Your task to perform on an android device: change notification settings in the gmail app Image 0: 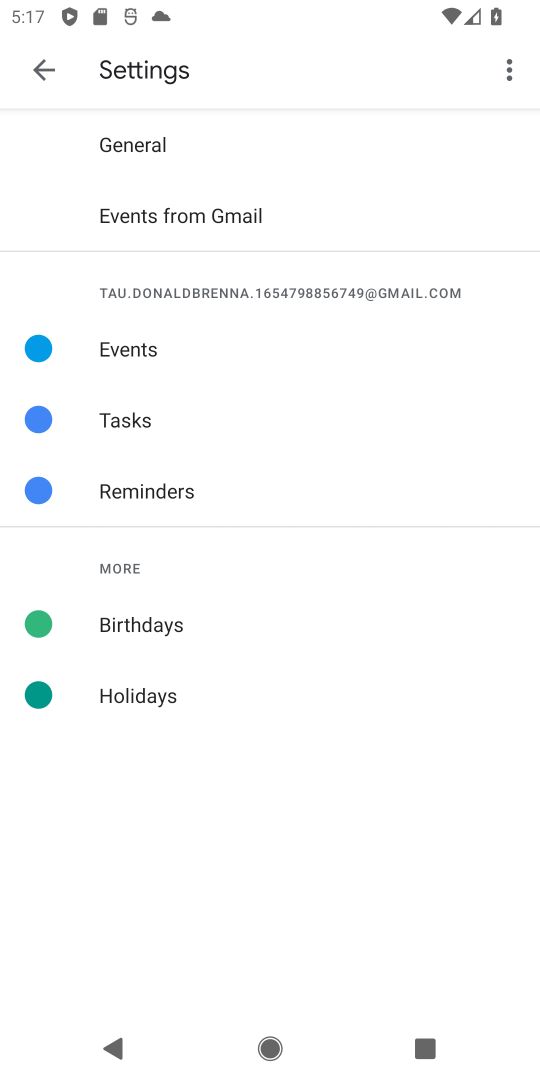
Step 0: press back button
Your task to perform on an android device: change notification settings in the gmail app Image 1: 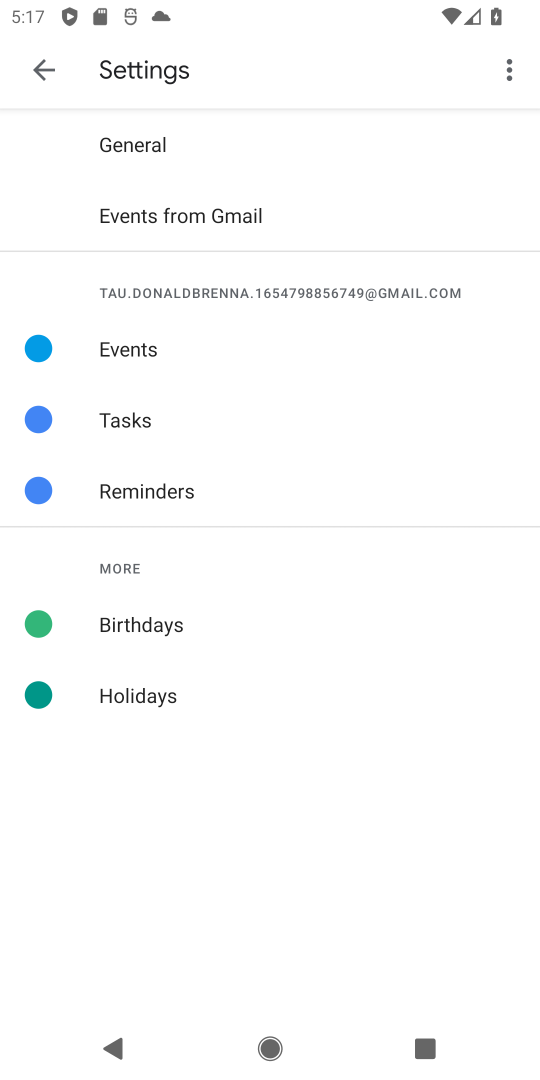
Step 1: press back button
Your task to perform on an android device: change notification settings in the gmail app Image 2: 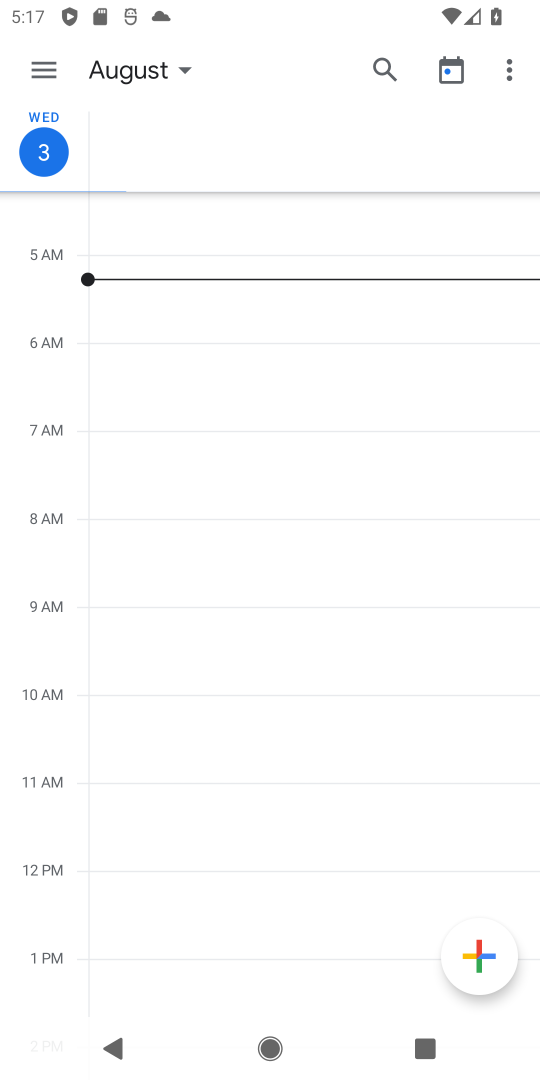
Step 2: press back button
Your task to perform on an android device: change notification settings in the gmail app Image 3: 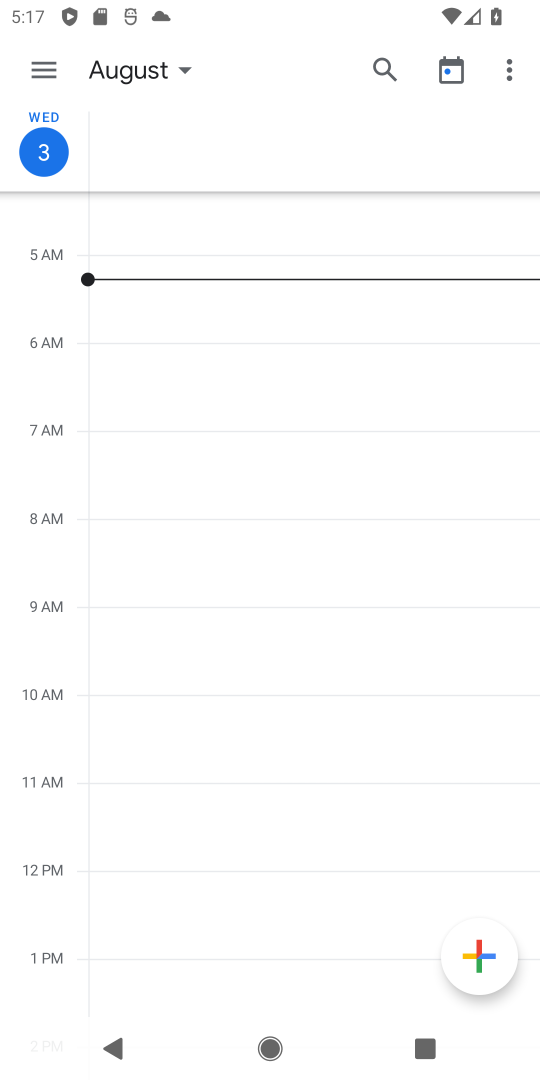
Step 3: press back button
Your task to perform on an android device: change notification settings in the gmail app Image 4: 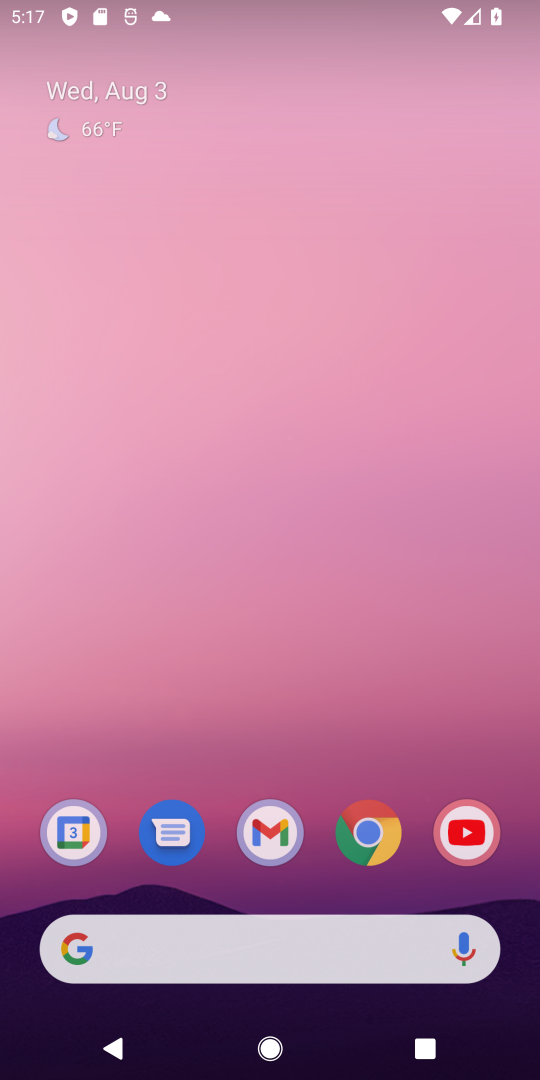
Step 4: press back button
Your task to perform on an android device: change notification settings in the gmail app Image 5: 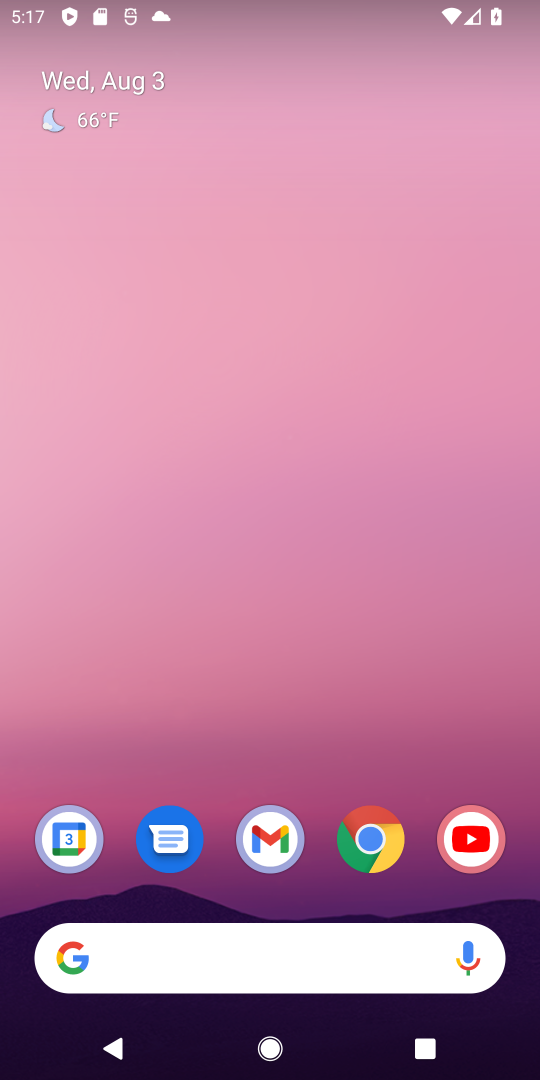
Step 5: click (274, 832)
Your task to perform on an android device: change notification settings in the gmail app Image 6: 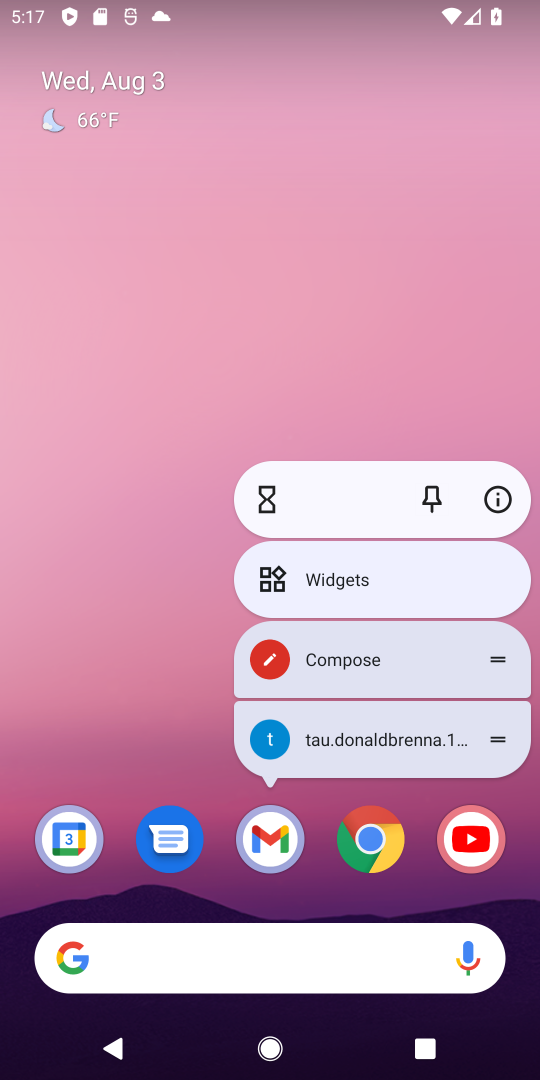
Step 6: click (486, 501)
Your task to perform on an android device: change notification settings in the gmail app Image 7: 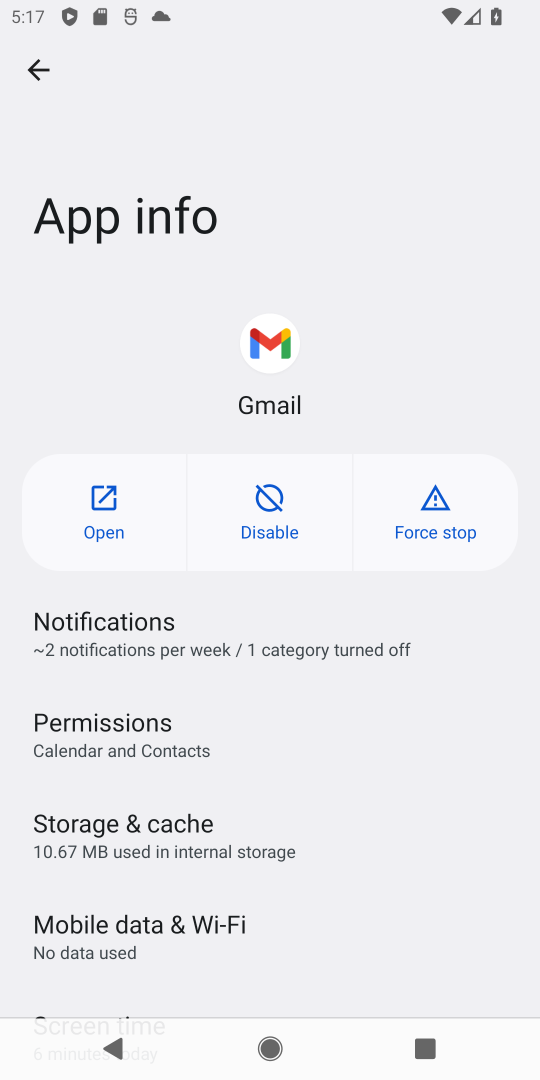
Step 7: click (165, 635)
Your task to perform on an android device: change notification settings in the gmail app Image 8: 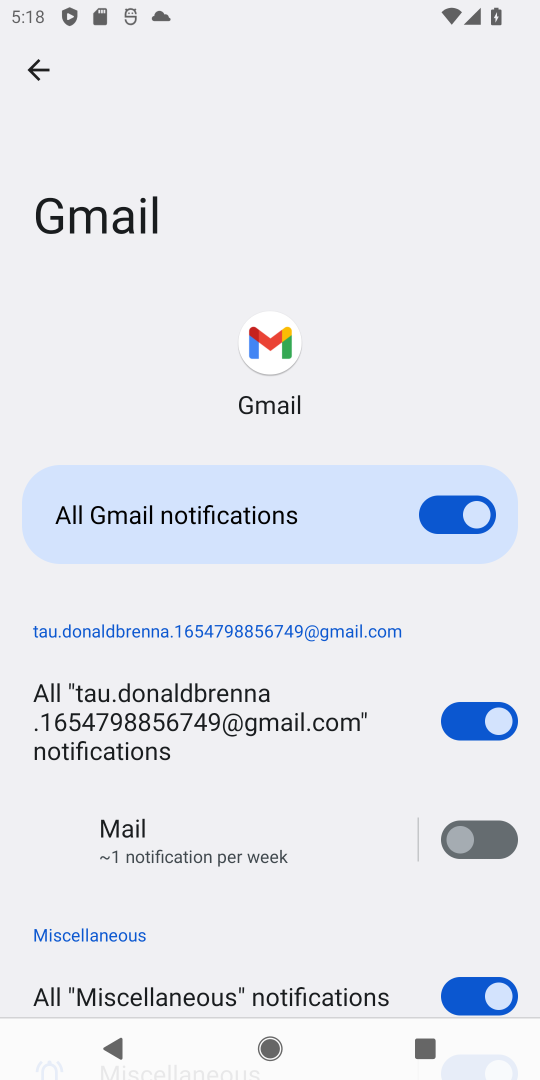
Step 8: click (452, 516)
Your task to perform on an android device: change notification settings in the gmail app Image 9: 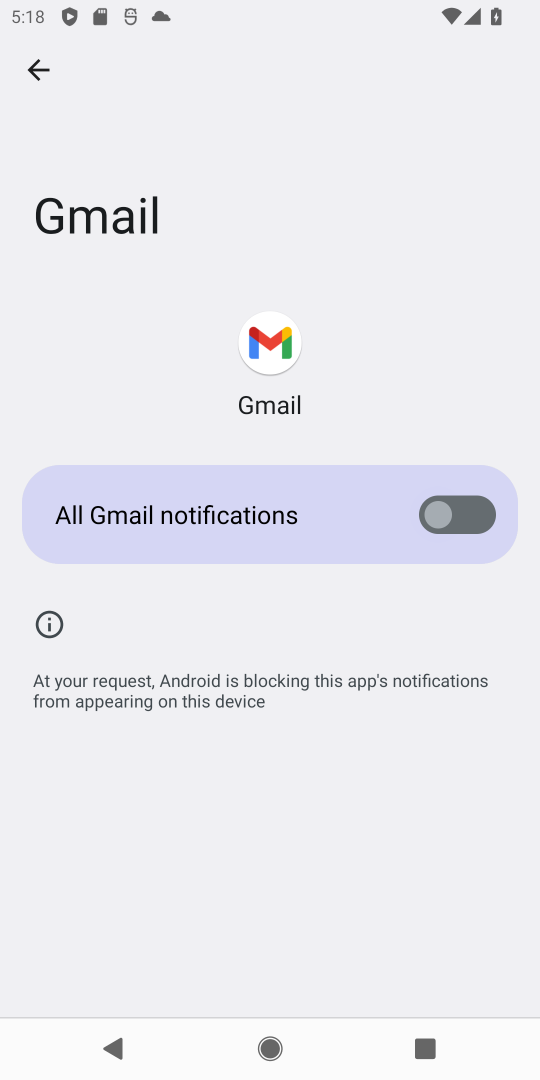
Step 9: task complete